Your task to perform on an android device: change the clock display to show seconds Image 0: 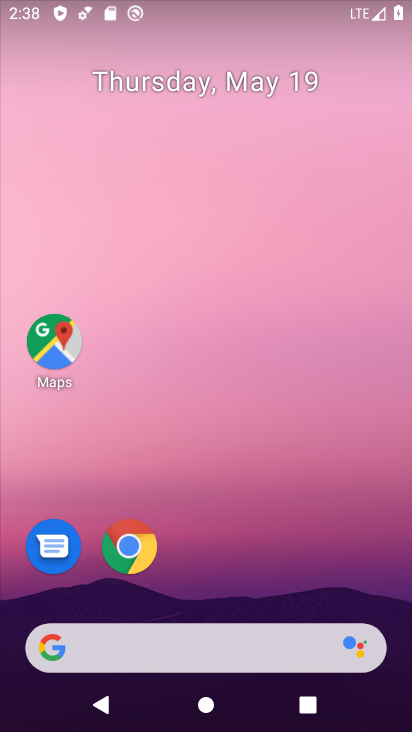
Step 0: press home button
Your task to perform on an android device: change the clock display to show seconds Image 1: 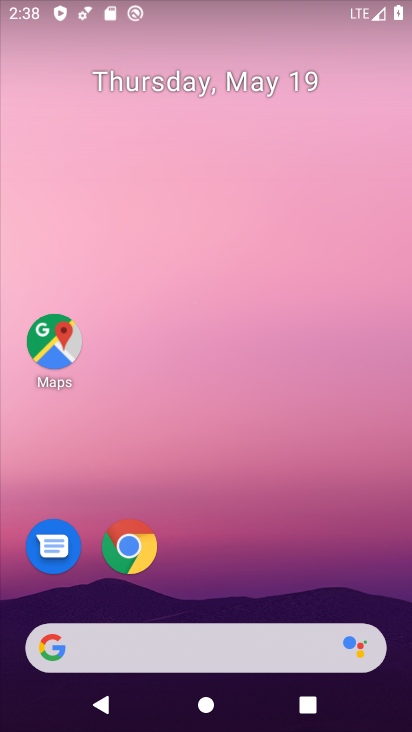
Step 1: drag from (180, 648) to (293, 157)
Your task to perform on an android device: change the clock display to show seconds Image 2: 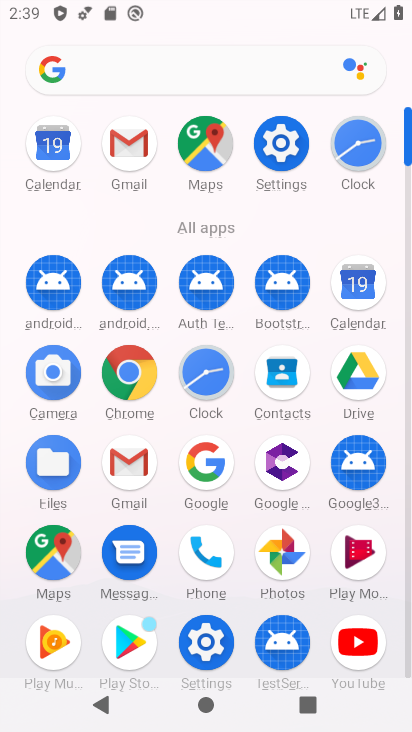
Step 2: click (353, 153)
Your task to perform on an android device: change the clock display to show seconds Image 3: 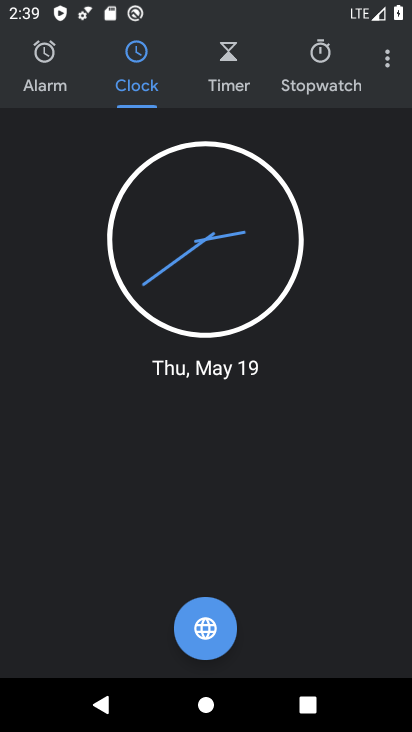
Step 3: click (386, 70)
Your task to perform on an android device: change the clock display to show seconds Image 4: 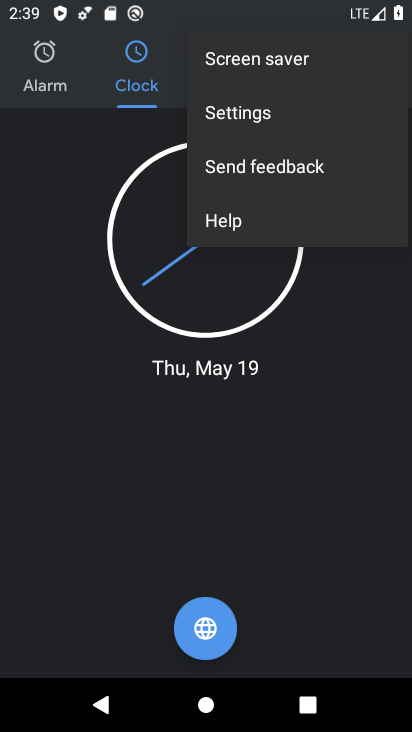
Step 4: click (268, 116)
Your task to perform on an android device: change the clock display to show seconds Image 5: 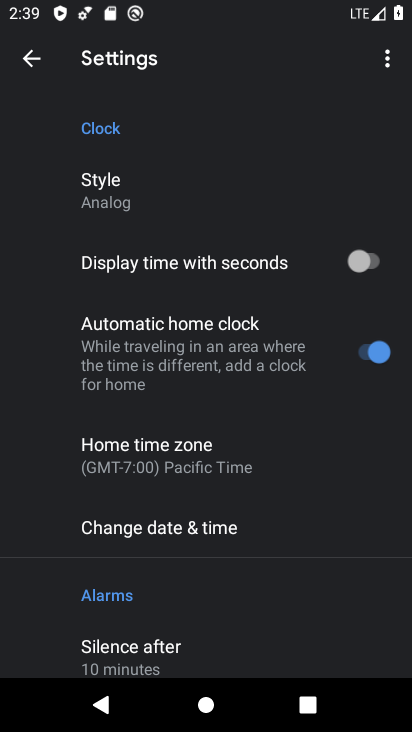
Step 5: click (374, 266)
Your task to perform on an android device: change the clock display to show seconds Image 6: 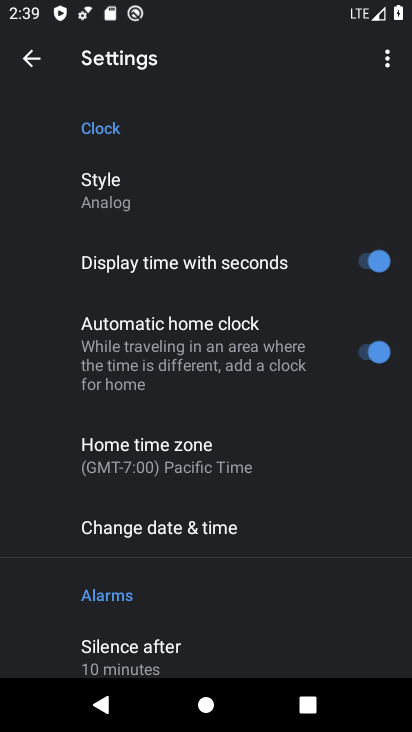
Step 6: task complete